Your task to perform on an android device: set an alarm Image 0: 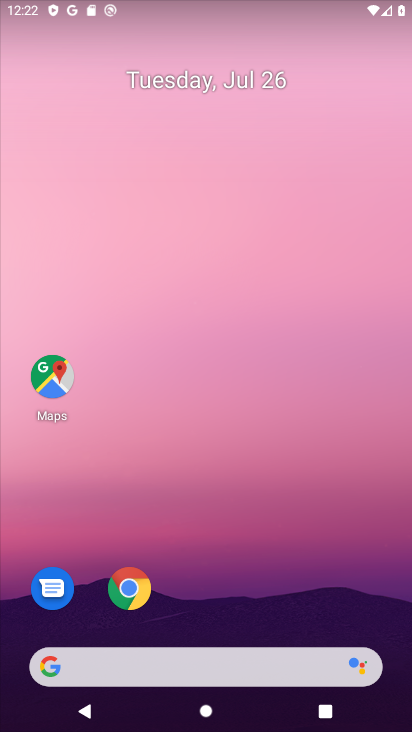
Step 0: drag from (246, 613) to (155, 143)
Your task to perform on an android device: set an alarm Image 1: 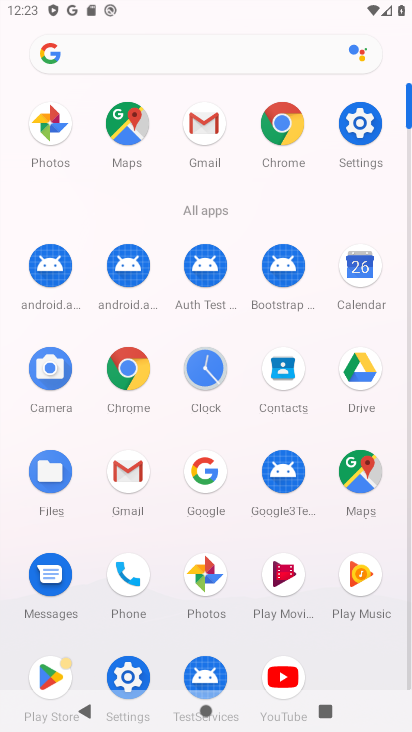
Step 1: click (214, 374)
Your task to perform on an android device: set an alarm Image 2: 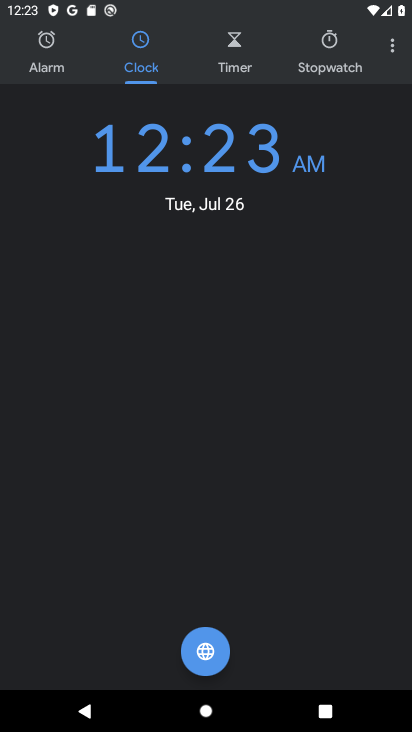
Step 2: click (44, 58)
Your task to perform on an android device: set an alarm Image 3: 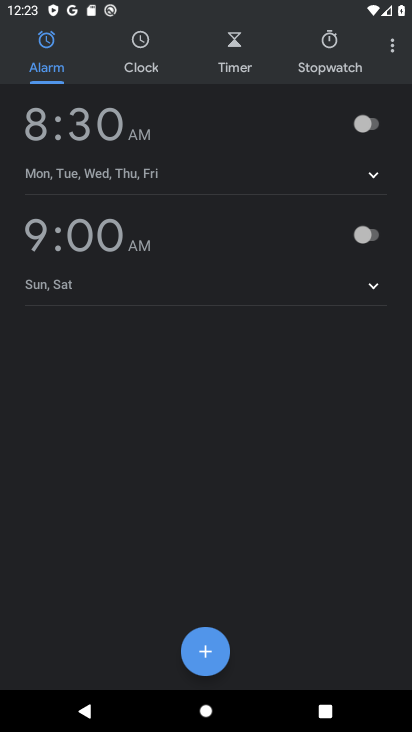
Step 3: click (210, 650)
Your task to perform on an android device: set an alarm Image 4: 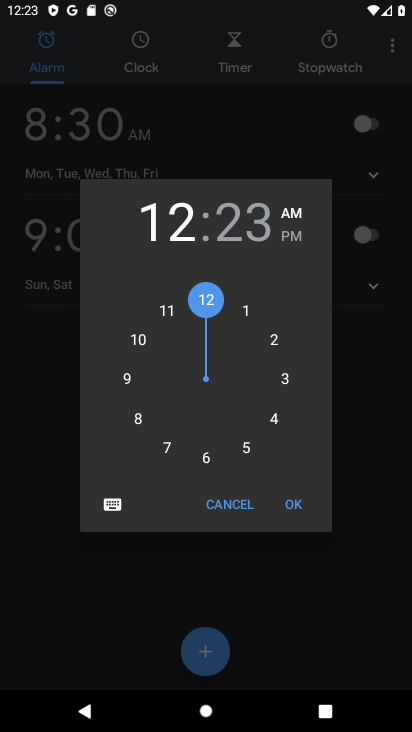
Step 4: click (294, 514)
Your task to perform on an android device: set an alarm Image 5: 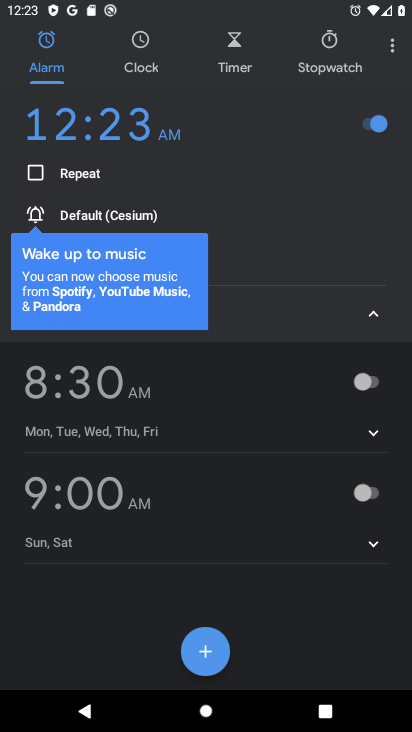
Step 5: task complete